Your task to perform on an android device: choose inbox layout in the gmail app Image 0: 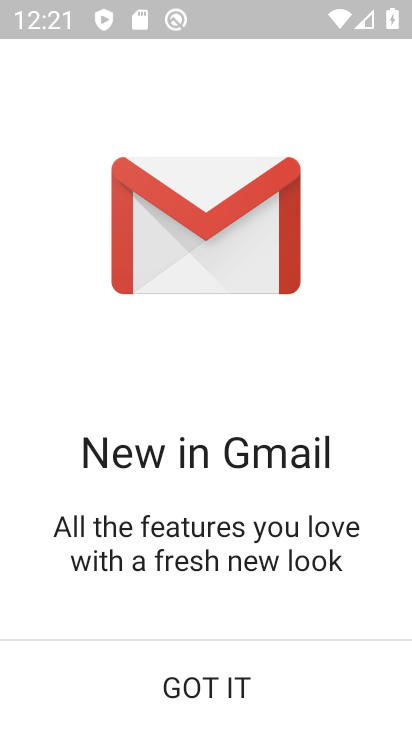
Step 0: press home button
Your task to perform on an android device: choose inbox layout in the gmail app Image 1: 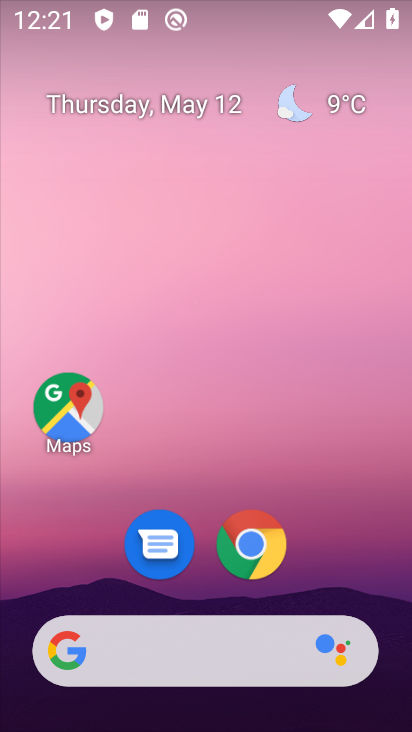
Step 1: drag from (189, 717) to (192, 125)
Your task to perform on an android device: choose inbox layout in the gmail app Image 2: 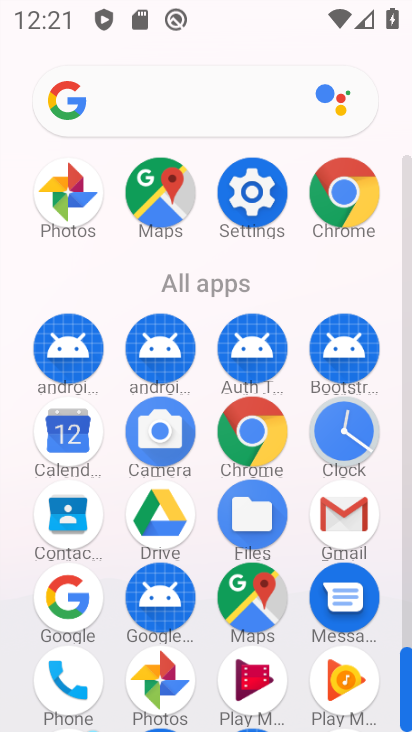
Step 2: click (354, 519)
Your task to perform on an android device: choose inbox layout in the gmail app Image 3: 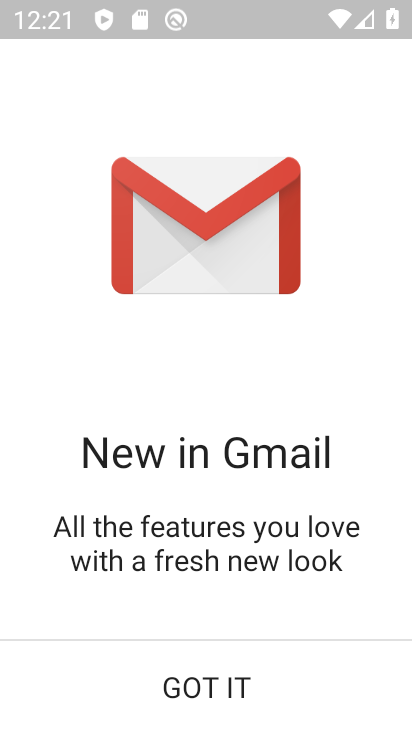
Step 3: click (177, 673)
Your task to perform on an android device: choose inbox layout in the gmail app Image 4: 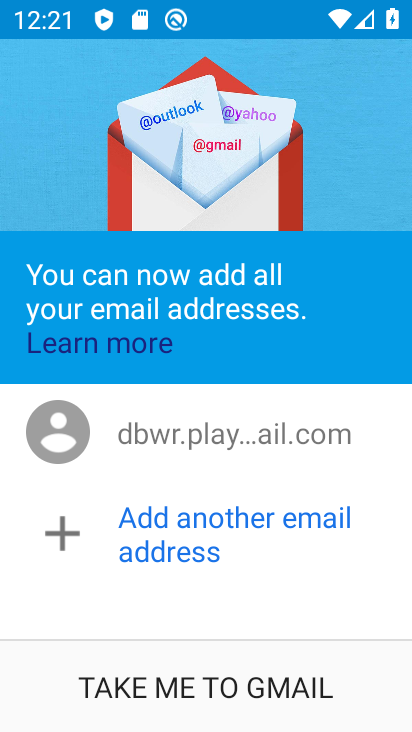
Step 4: click (214, 682)
Your task to perform on an android device: choose inbox layout in the gmail app Image 5: 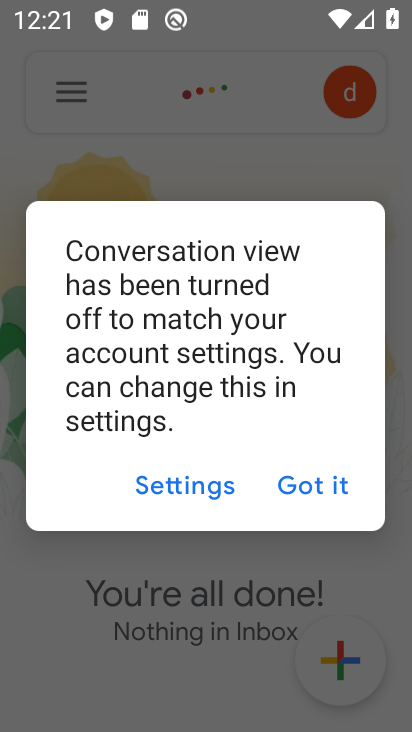
Step 5: click (296, 486)
Your task to perform on an android device: choose inbox layout in the gmail app Image 6: 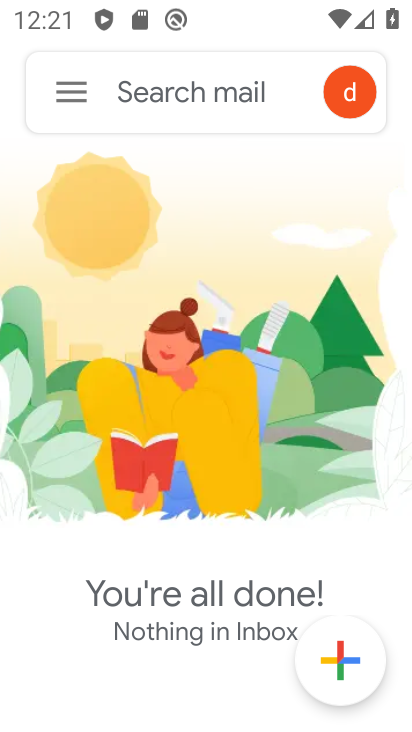
Step 6: click (69, 91)
Your task to perform on an android device: choose inbox layout in the gmail app Image 7: 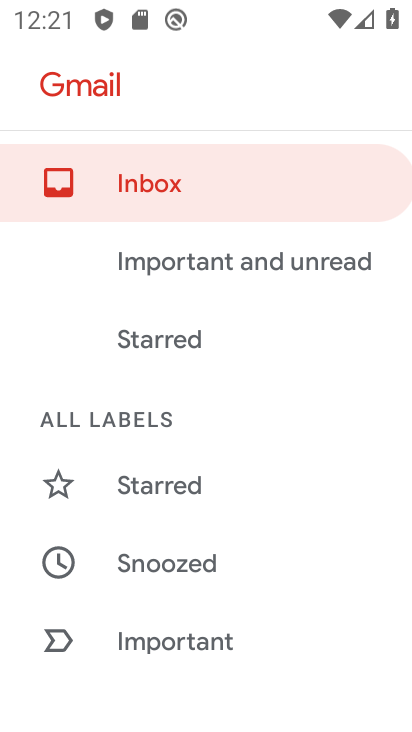
Step 7: drag from (155, 663) to (180, 286)
Your task to perform on an android device: choose inbox layout in the gmail app Image 8: 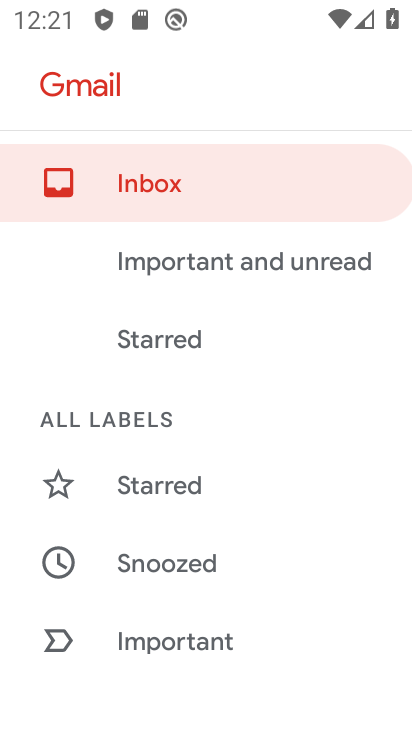
Step 8: drag from (158, 592) to (160, 151)
Your task to perform on an android device: choose inbox layout in the gmail app Image 9: 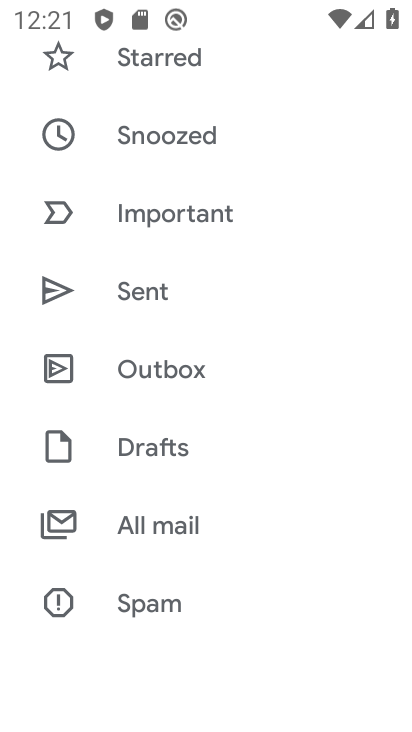
Step 9: drag from (167, 617) to (166, 217)
Your task to perform on an android device: choose inbox layout in the gmail app Image 10: 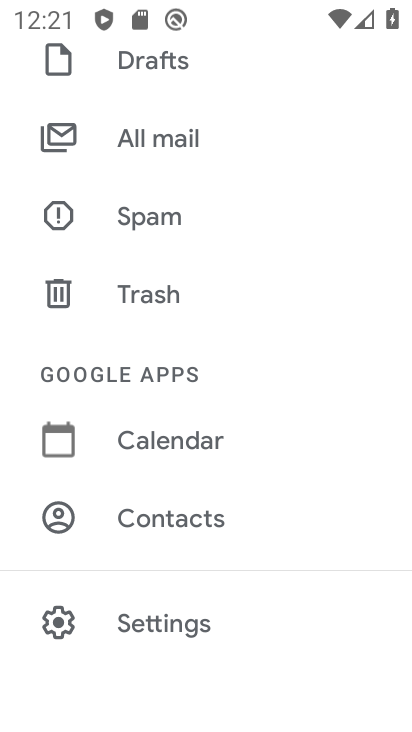
Step 10: drag from (150, 589) to (150, 214)
Your task to perform on an android device: choose inbox layout in the gmail app Image 11: 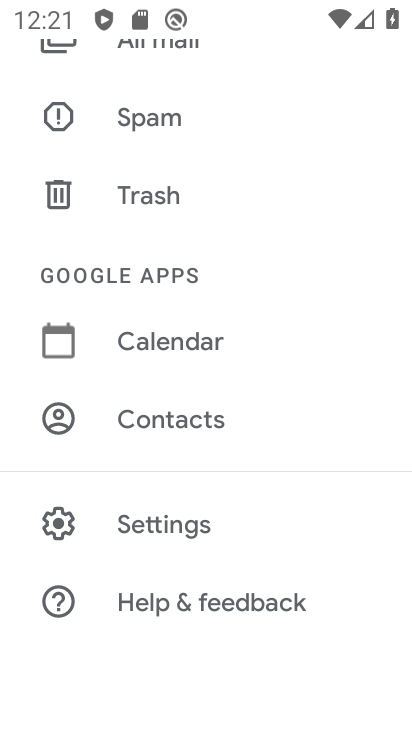
Step 11: click (165, 526)
Your task to perform on an android device: choose inbox layout in the gmail app Image 12: 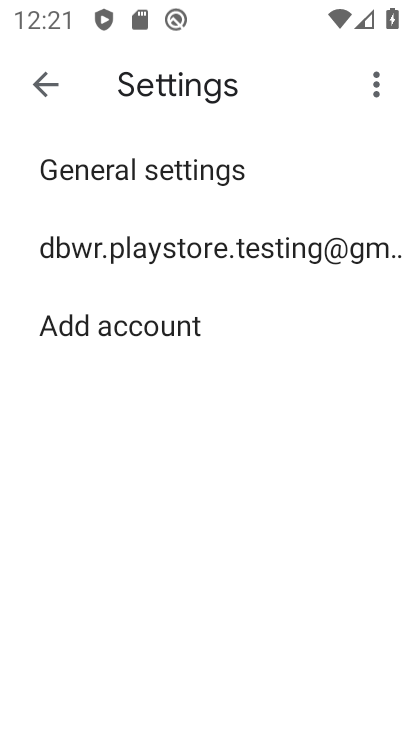
Step 12: click (196, 245)
Your task to perform on an android device: choose inbox layout in the gmail app Image 13: 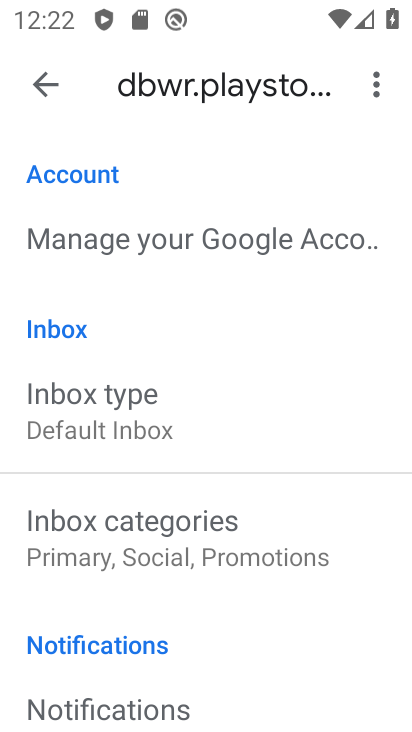
Step 13: click (87, 427)
Your task to perform on an android device: choose inbox layout in the gmail app Image 14: 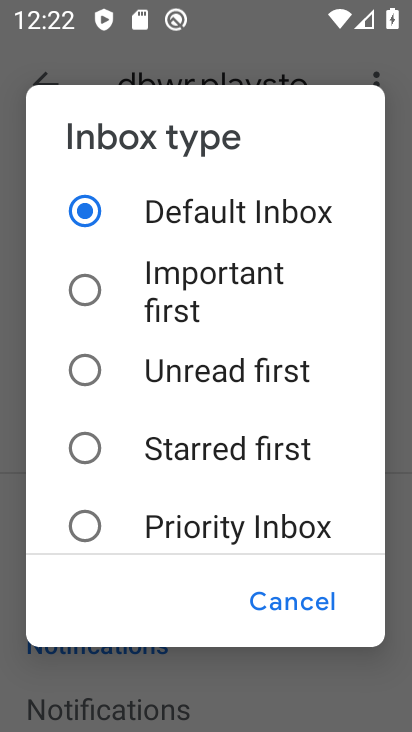
Step 14: click (85, 281)
Your task to perform on an android device: choose inbox layout in the gmail app Image 15: 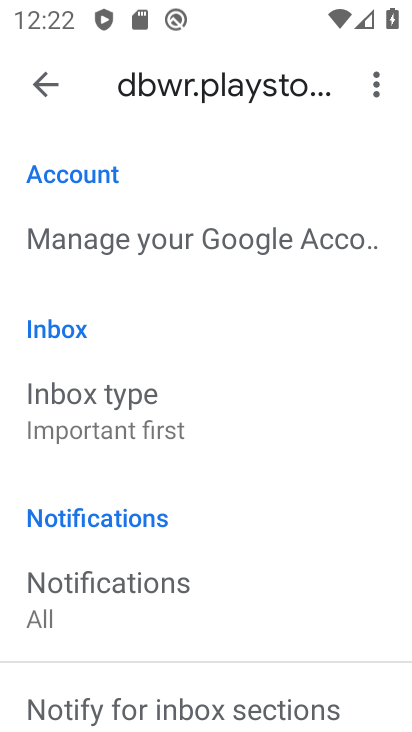
Step 15: task complete